Your task to perform on an android device: toggle wifi Image 0: 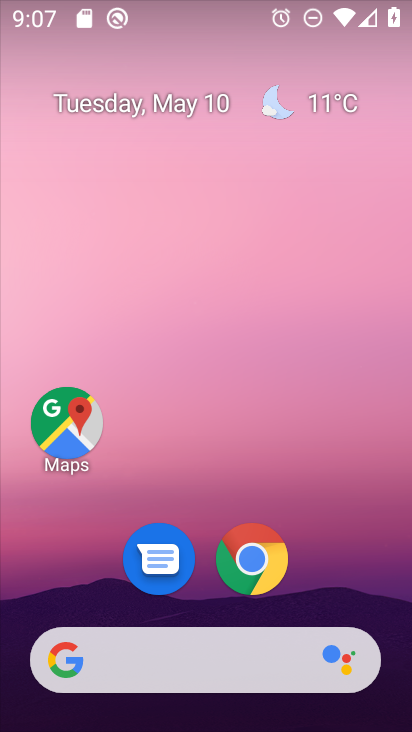
Step 0: drag from (202, 724) to (182, 143)
Your task to perform on an android device: toggle wifi Image 1: 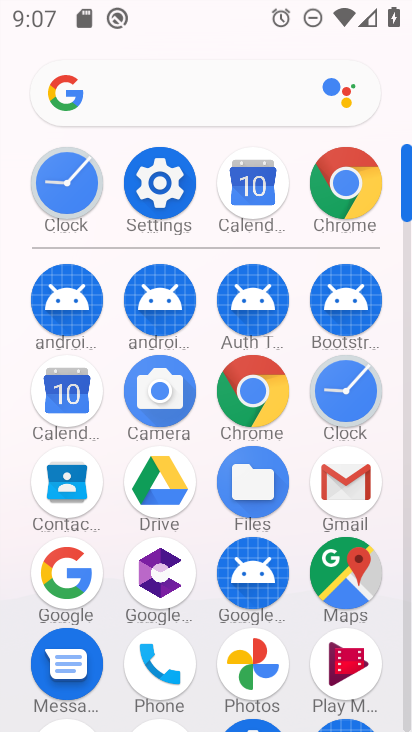
Step 1: click (149, 179)
Your task to perform on an android device: toggle wifi Image 2: 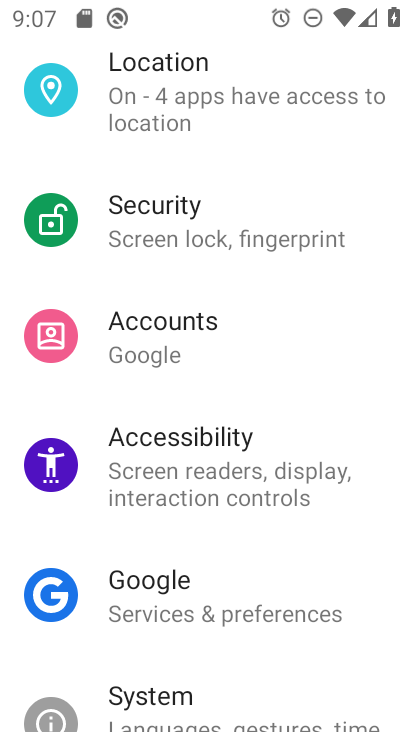
Step 2: drag from (273, 139) to (239, 524)
Your task to perform on an android device: toggle wifi Image 3: 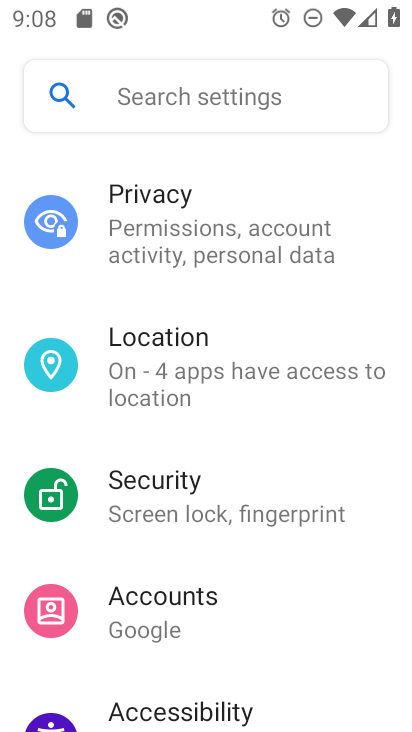
Step 3: drag from (217, 179) to (255, 520)
Your task to perform on an android device: toggle wifi Image 4: 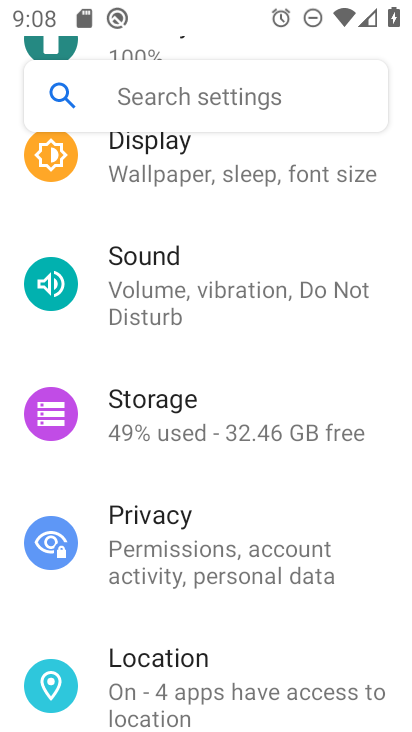
Step 4: drag from (268, 220) to (250, 488)
Your task to perform on an android device: toggle wifi Image 5: 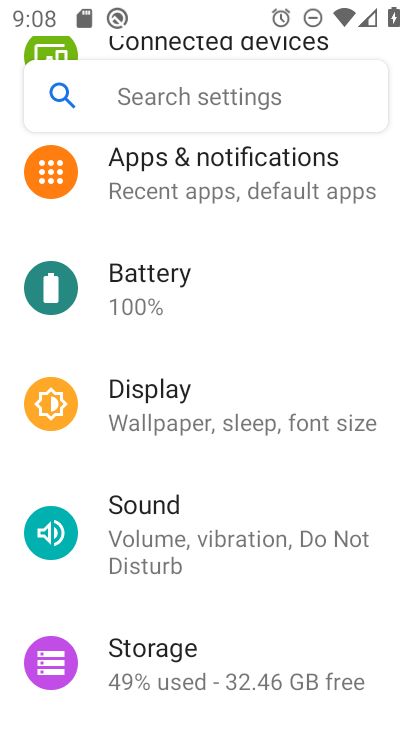
Step 5: drag from (238, 194) to (241, 547)
Your task to perform on an android device: toggle wifi Image 6: 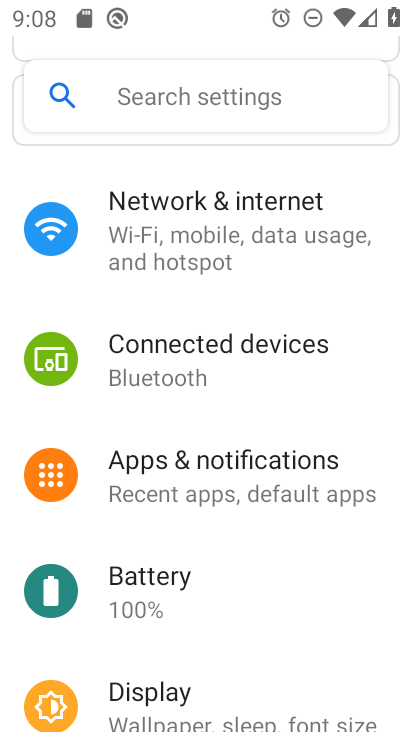
Step 6: click (236, 225)
Your task to perform on an android device: toggle wifi Image 7: 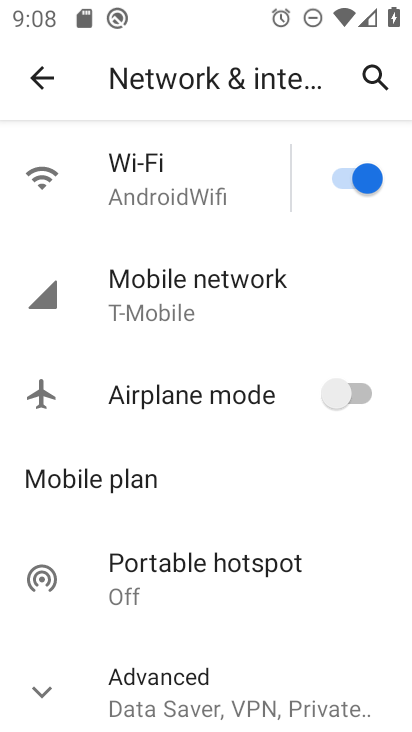
Step 7: click (131, 190)
Your task to perform on an android device: toggle wifi Image 8: 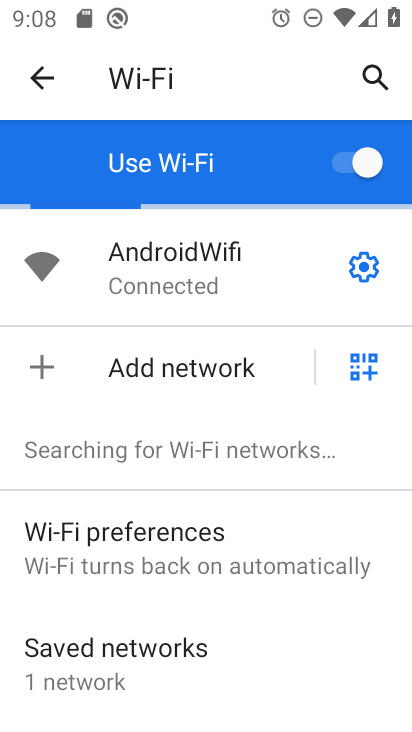
Step 8: click (340, 156)
Your task to perform on an android device: toggle wifi Image 9: 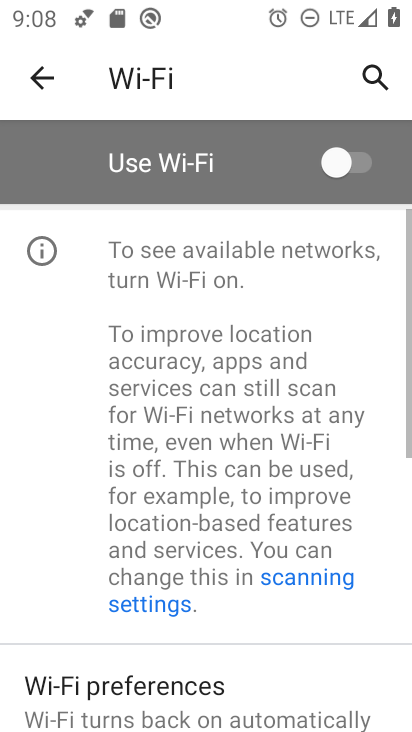
Step 9: task complete